Your task to perform on an android device: What's on my calendar today? Image 0: 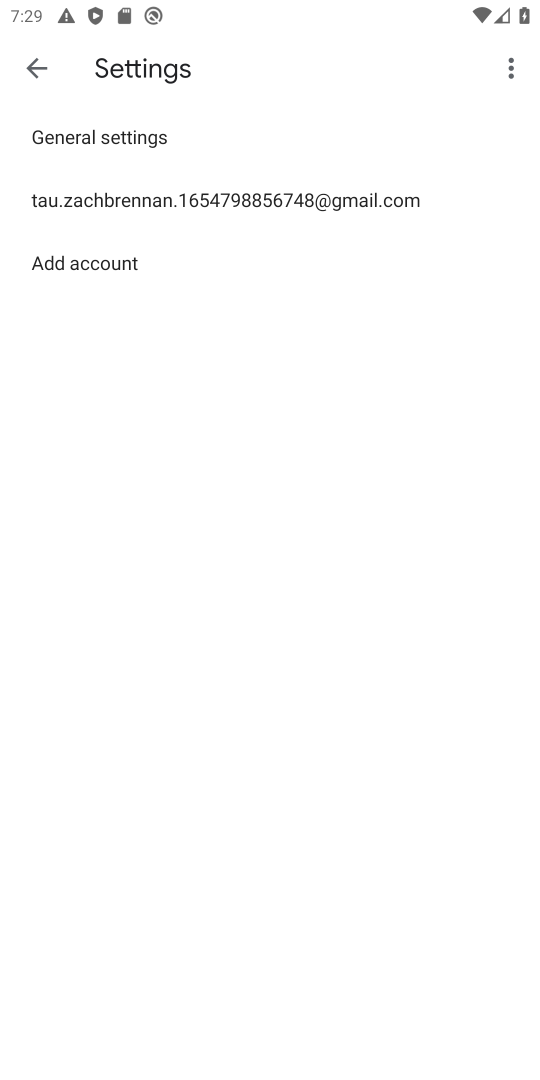
Step 0: press home button
Your task to perform on an android device: What's on my calendar today? Image 1: 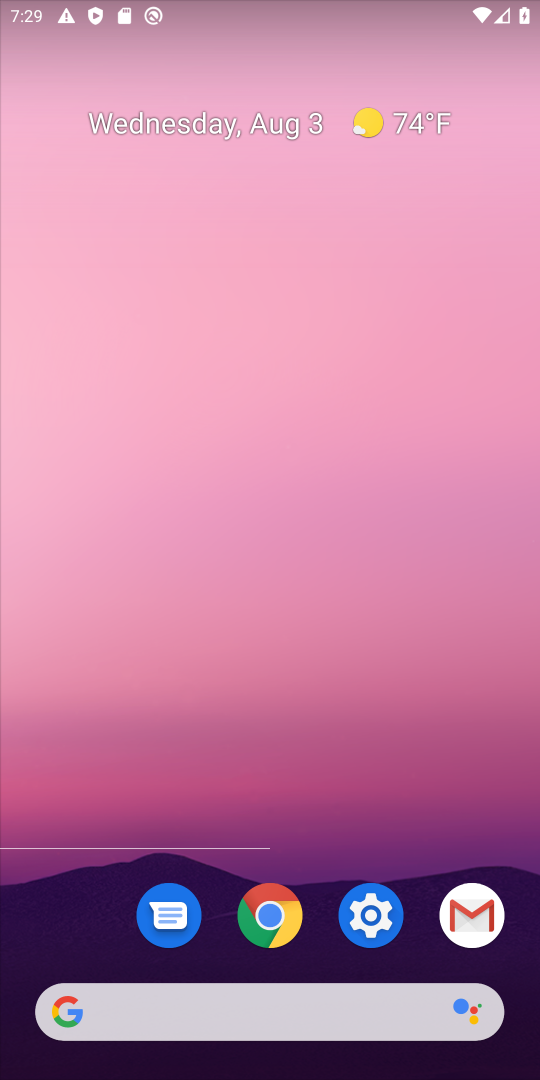
Step 1: drag from (351, 1037) to (299, 316)
Your task to perform on an android device: What's on my calendar today? Image 2: 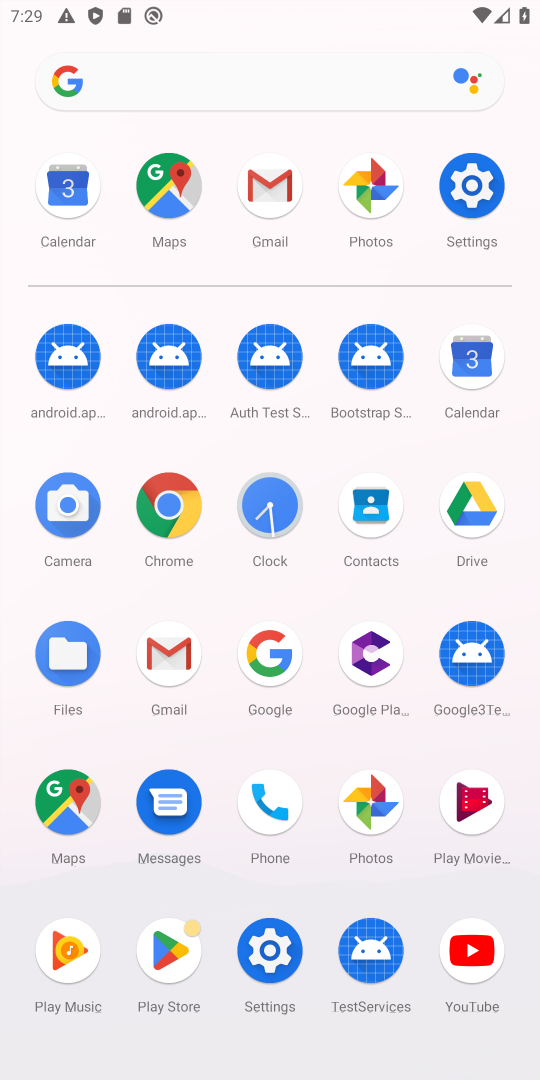
Step 2: click (488, 367)
Your task to perform on an android device: What's on my calendar today? Image 3: 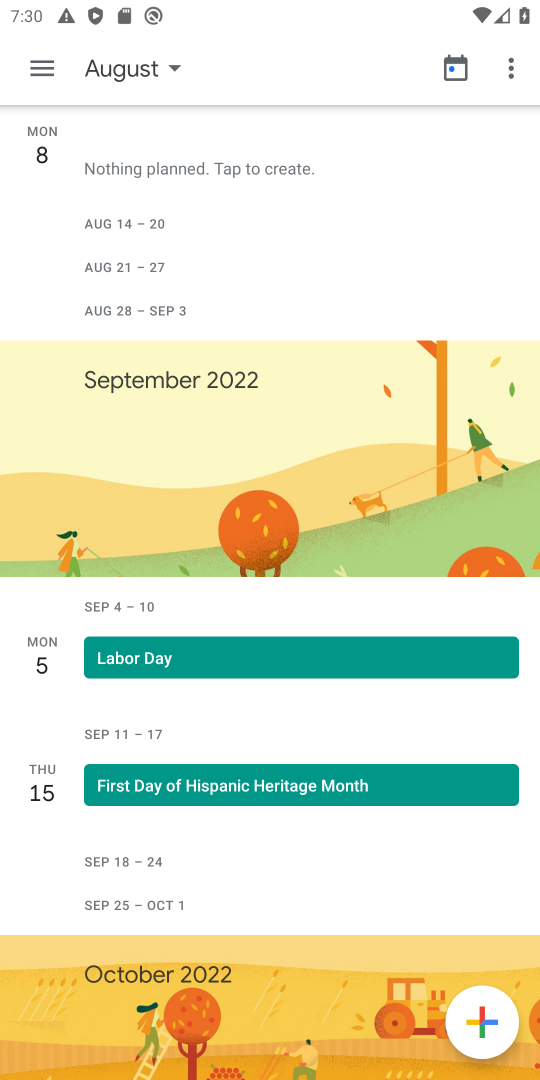
Step 3: click (47, 70)
Your task to perform on an android device: What's on my calendar today? Image 4: 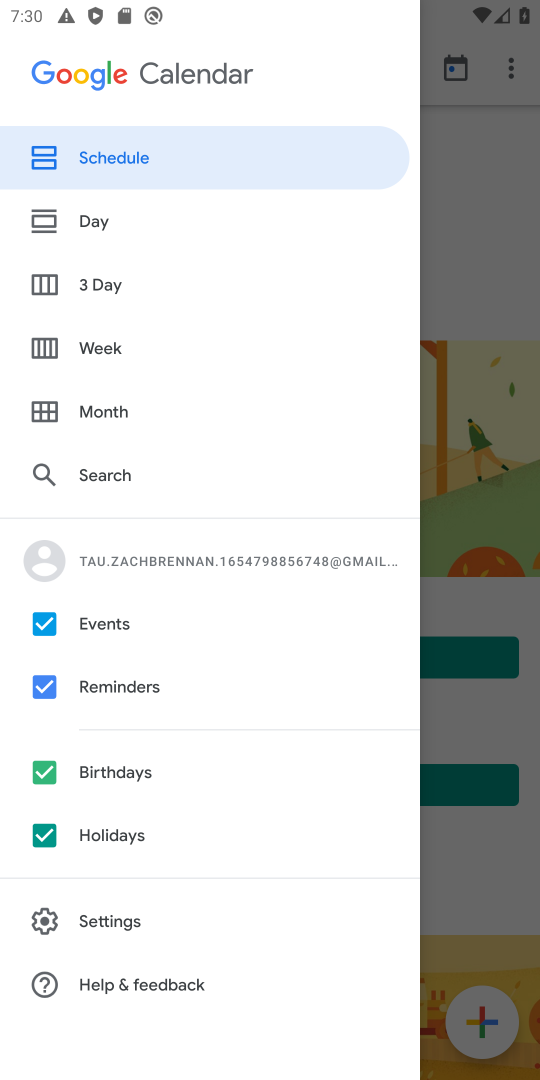
Step 4: click (126, 411)
Your task to perform on an android device: What's on my calendar today? Image 5: 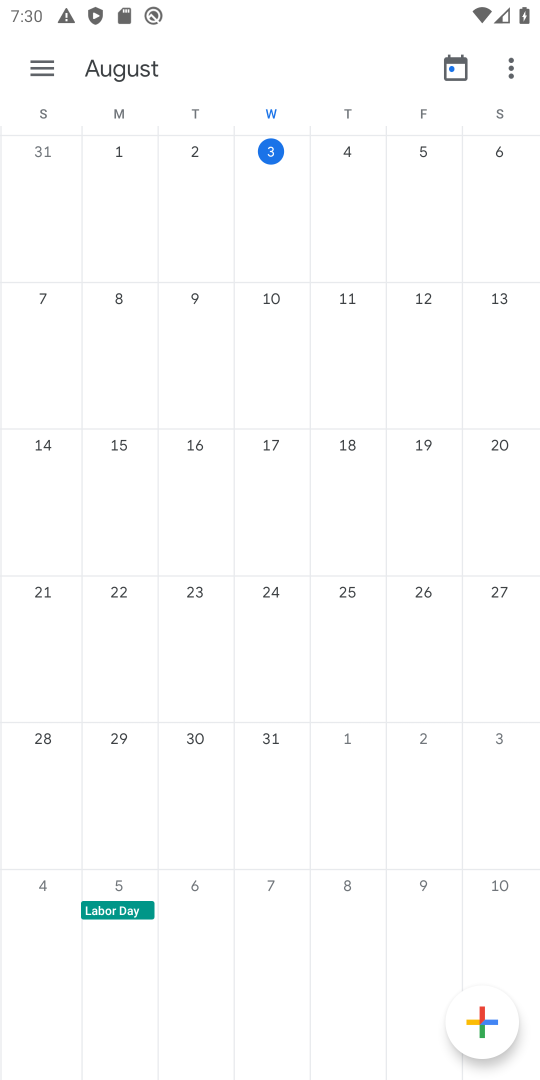
Step 5: click (261, 202)
Your task to perform on an android device: What's on my calendar today? Image 6: 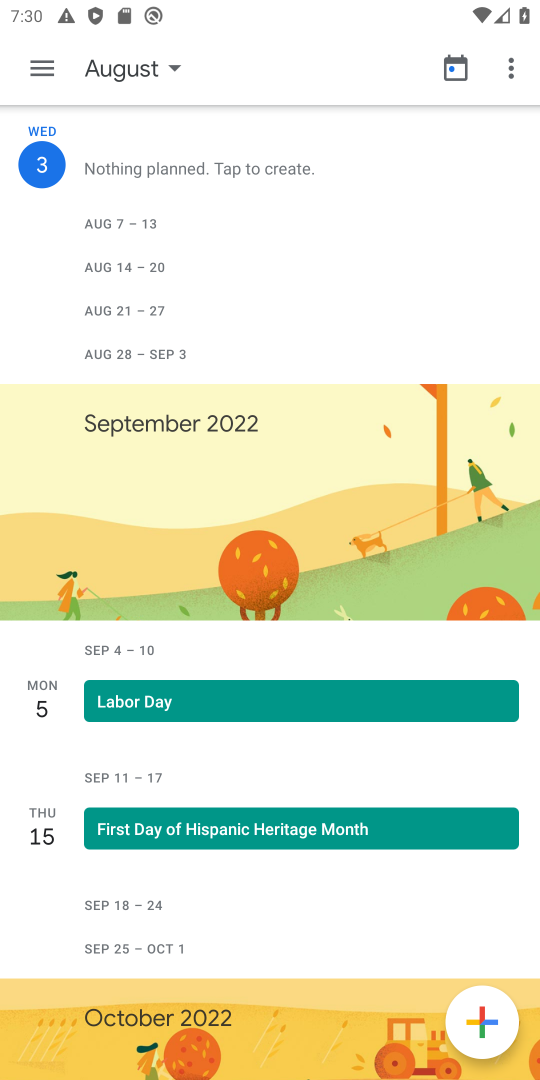
Step 6: task complete